Your task to perform on an android device: turn off sleep mode Image 0: 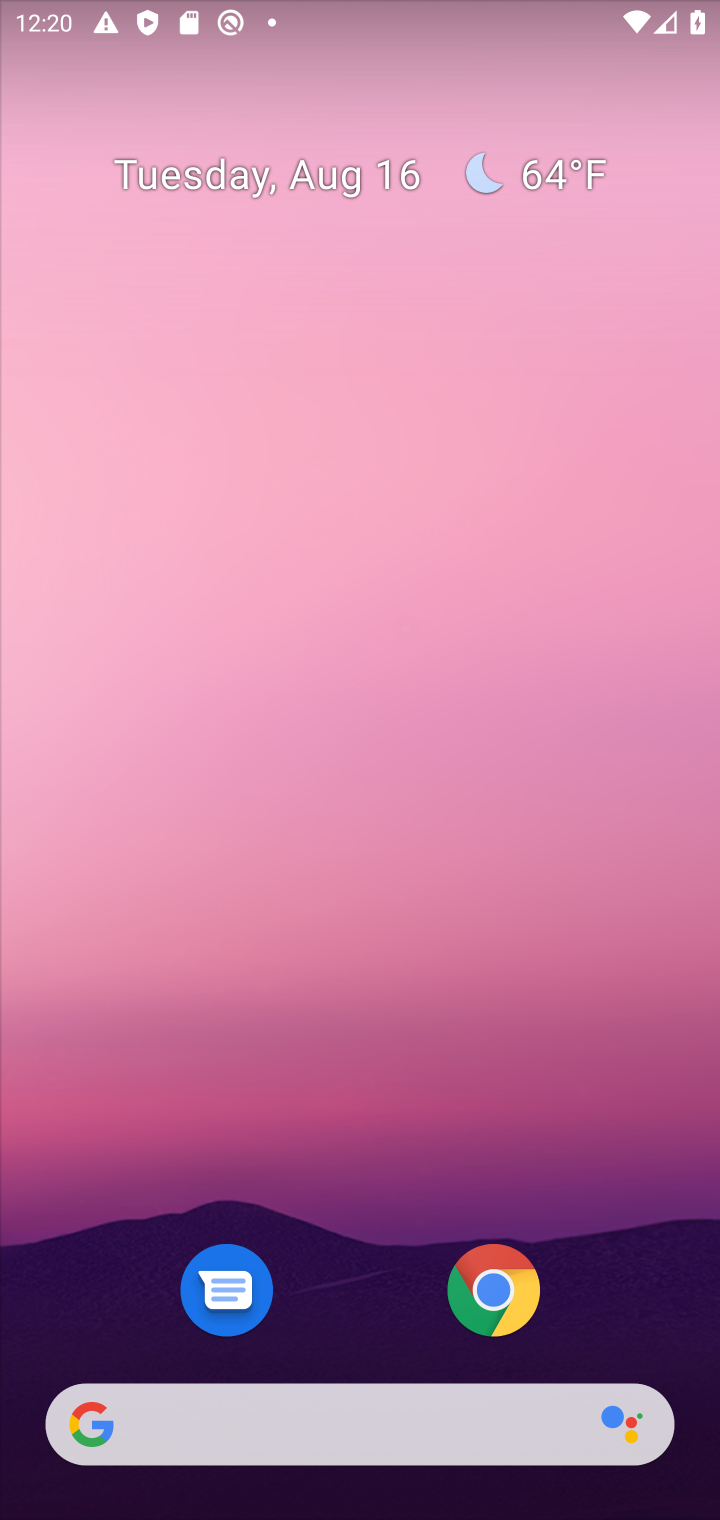
Step 0: drag from (117, 1225) to (625, 52)
Your task to perform on an android device: turn off sleep mode Image 1: 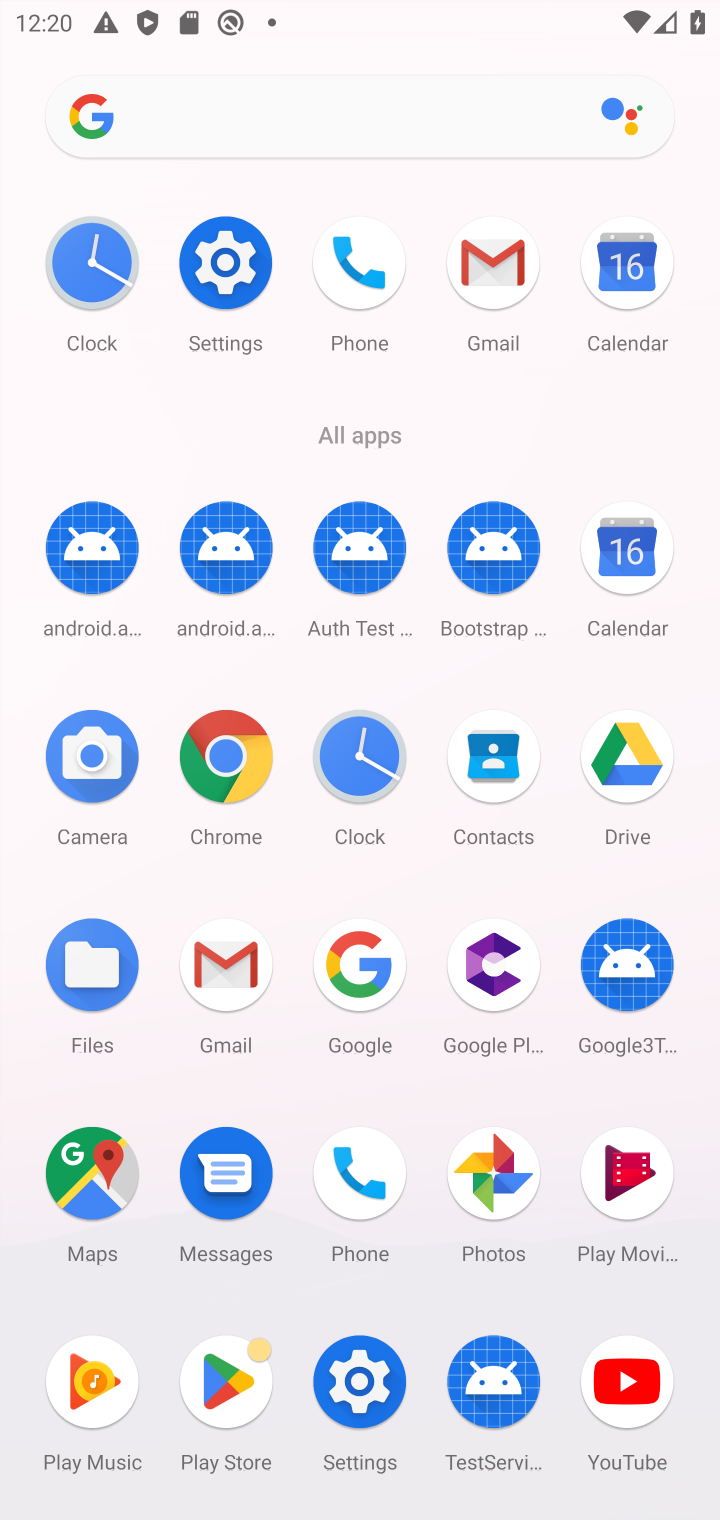
Step 1: click (233, 254)
Your task to perform on an android device: turn off sleep mode Image 2: 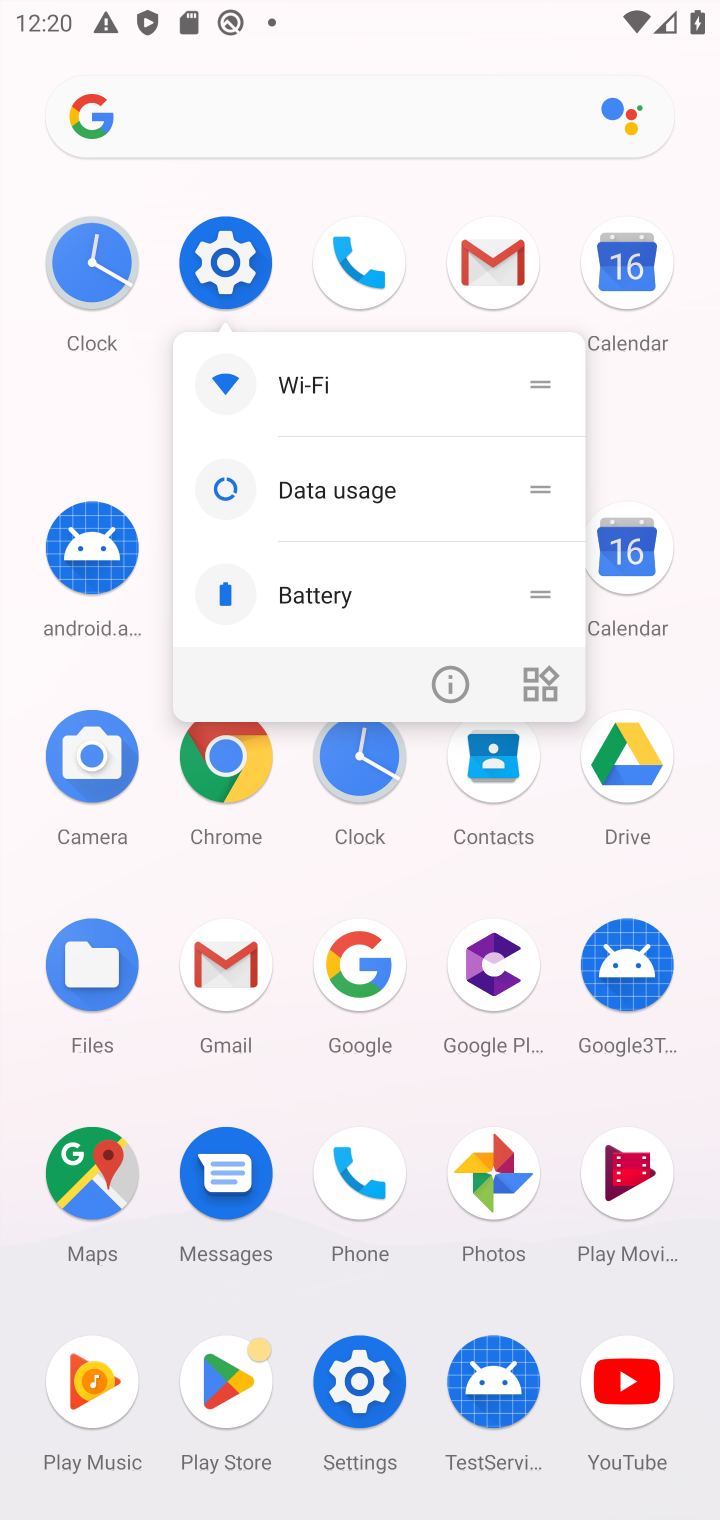
Step 2: click (256, 255)
Your task to perform on an android device: turn off sleep mode Image 3: 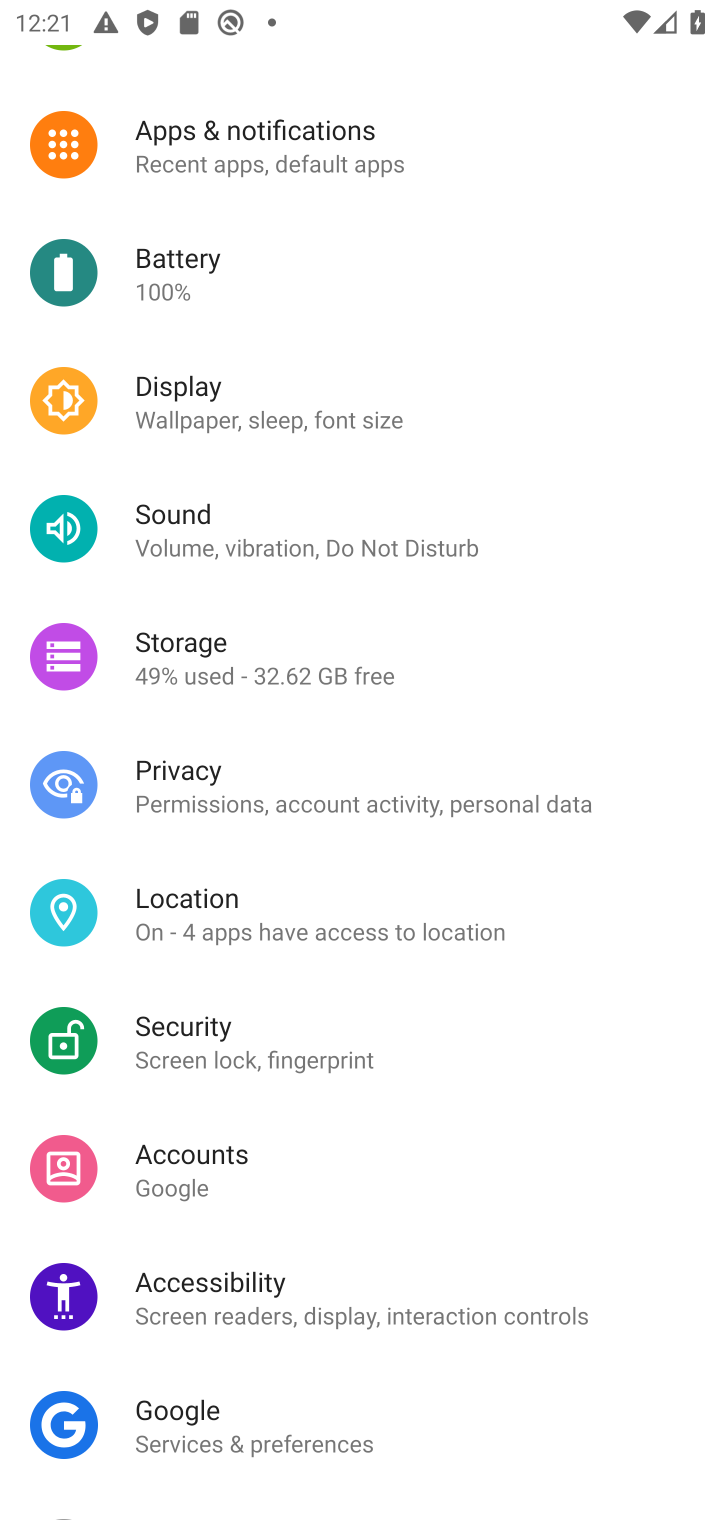
Step 3: click (210, 1301)
Your task to perform on an android device: turn off sleep mode Image 4: 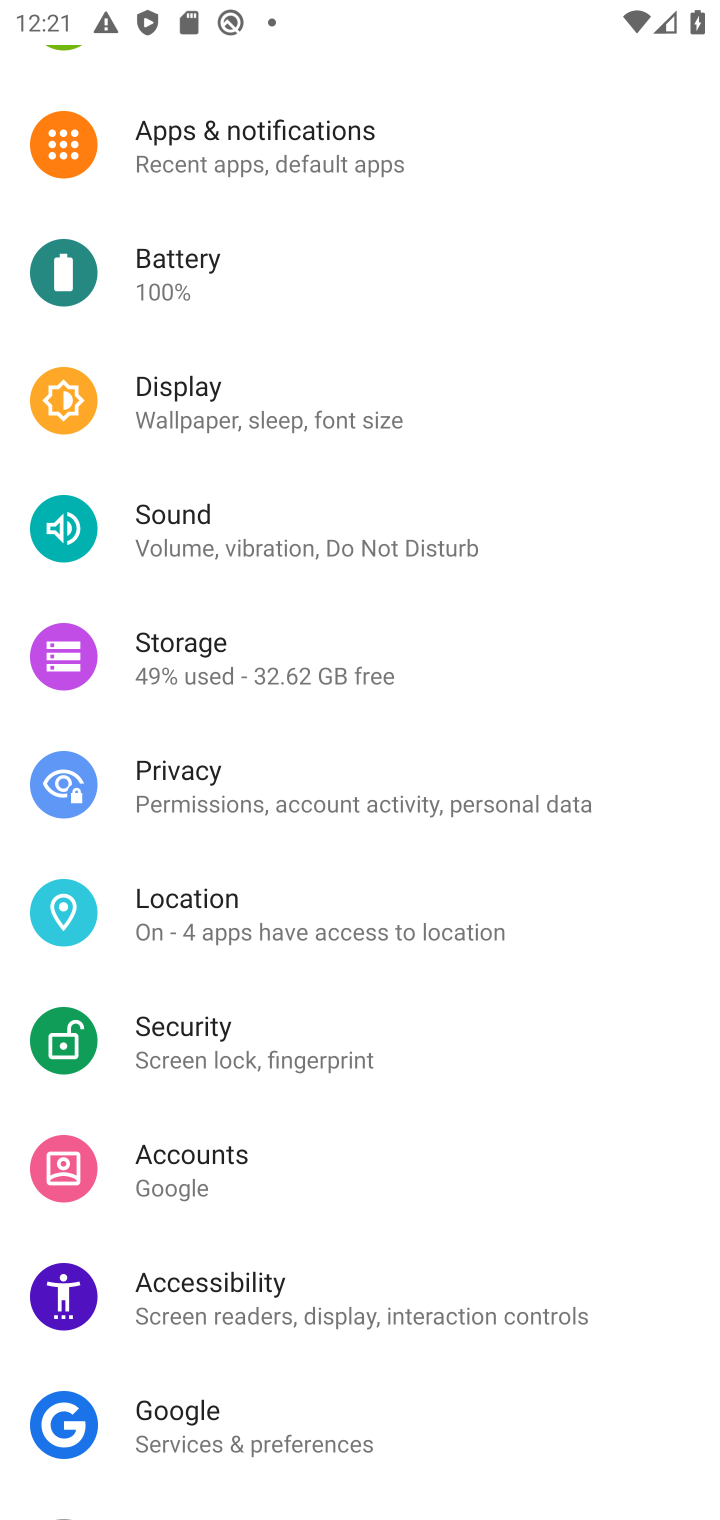
Step 4: task complete